Your task to perform on an android device: toggle notifications settings in the gmail app Image 0: 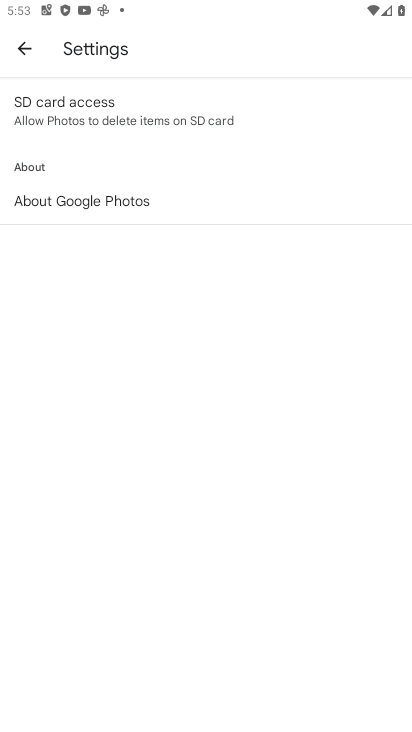
Step 0: press home button
Your task to perform on an android device: toggle notifications settings in the gmail app Image 1: 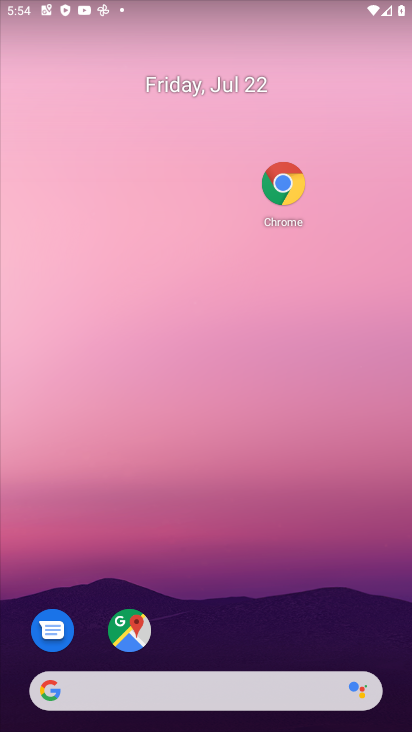
Step 1: drag from (185, 469) to (198, 254)
Your task to perform on an android device: toggle notifications settings in the gmail app Image 2: 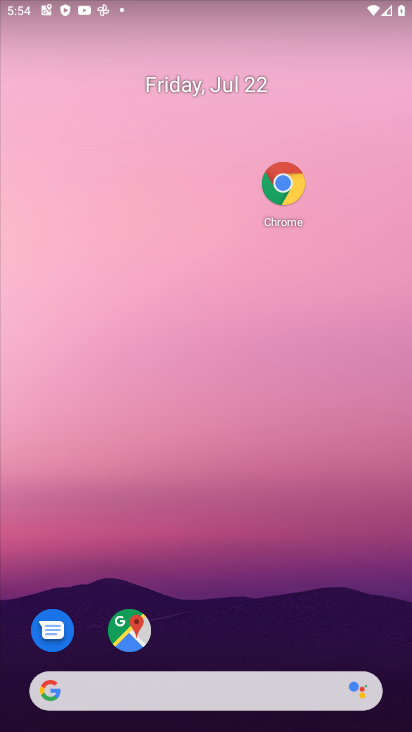
Step 2: drag from (187, 620) to (197, 189)
Your task to perform on an android device: toggle notifications settings in the gmail app Image 3: 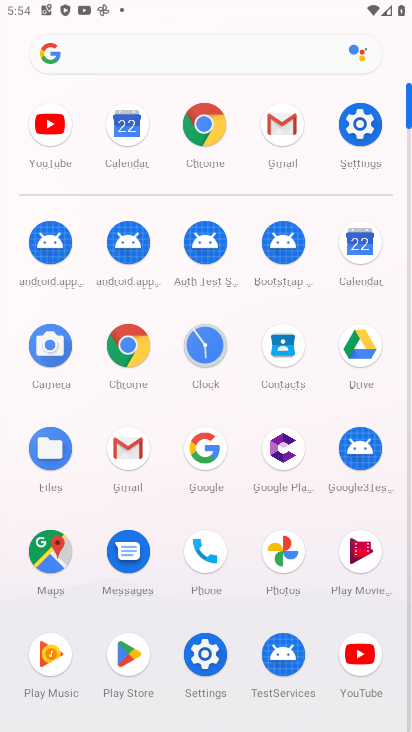
Step 3: click (279, 123)
Your task to perform on an android device: toggle notifications settings in the gmail app Image 4: 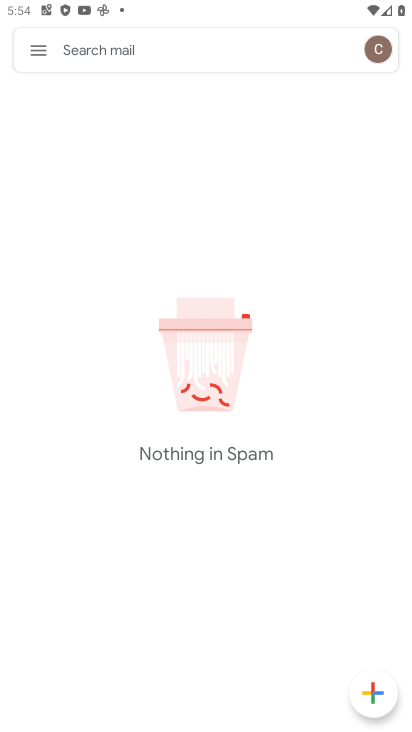
Step 4: click (31, 49)
Your task to perform on an android device: toggle notifications settings in the gmail app Image 5: 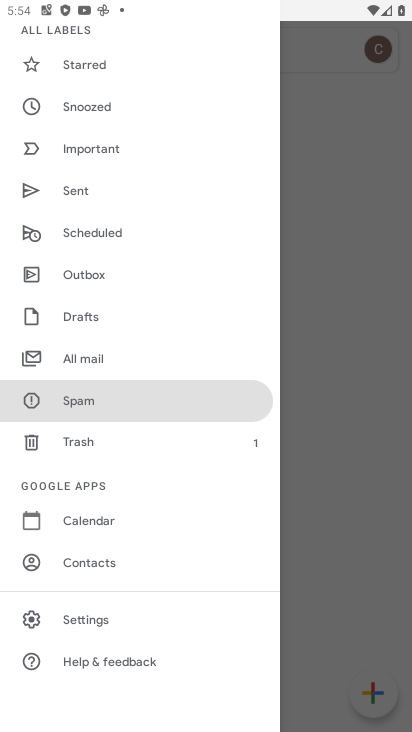
Step 5: click (92, 614)
Your task to perform on an android device: toggle notifications settings in the gmail app Image 6: 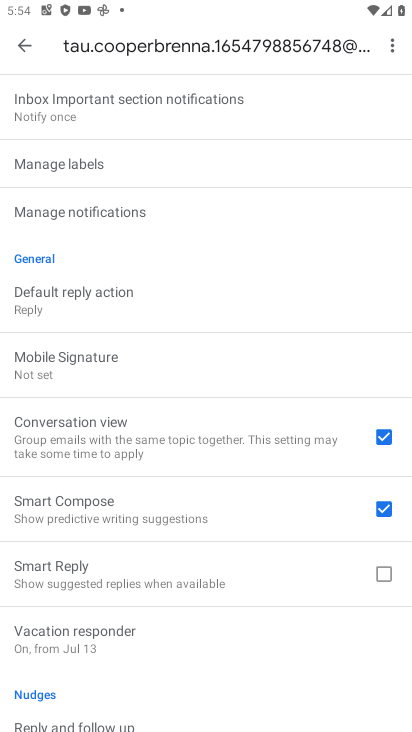
Step 6: click (92, 212)
Your task to perform on an android device: toggle notifications settings in the gmail app Image 7: 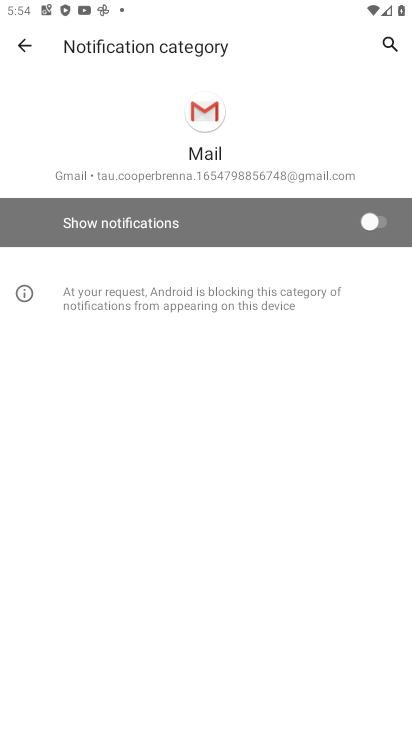
Step 7: click (382, 226)
Your task to perform on an android device: toggle notifications settings in the gmail app Image 8: 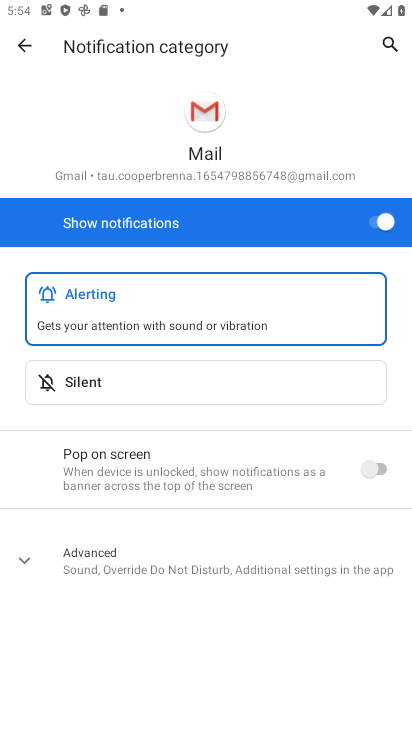
Step 8: task complete